Your task to perform on an android device: Go to display settings Image 0: 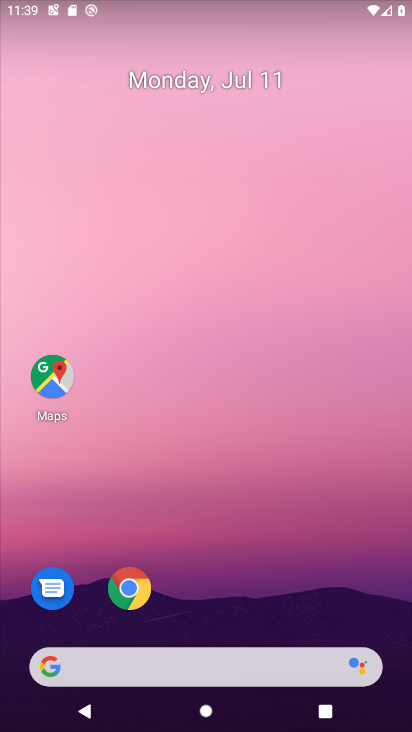
Step 0: drag from (269, 652) to (243, 223)
Your task to perform on an android device: Go to display settings Image 1: 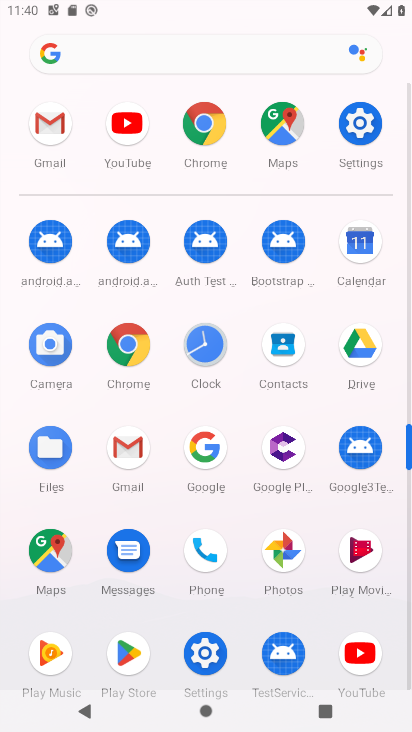
Step 1: click (348, 121)
Your task to perform on an android device: Go to display settings Image 2: 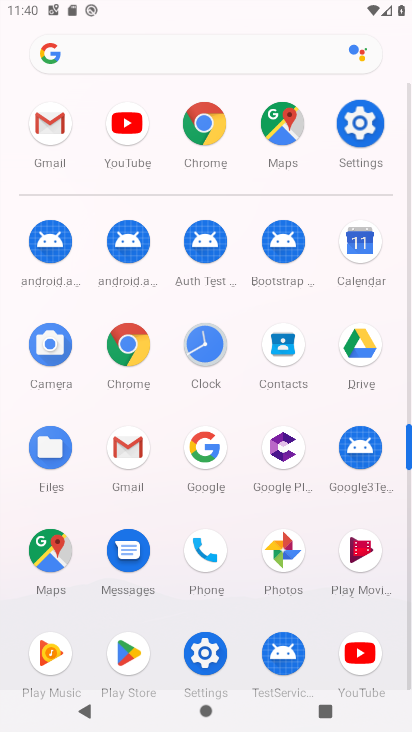
Step 2: click (351, 121)
Your task to perform on an android device: Go to display settings Image 3: 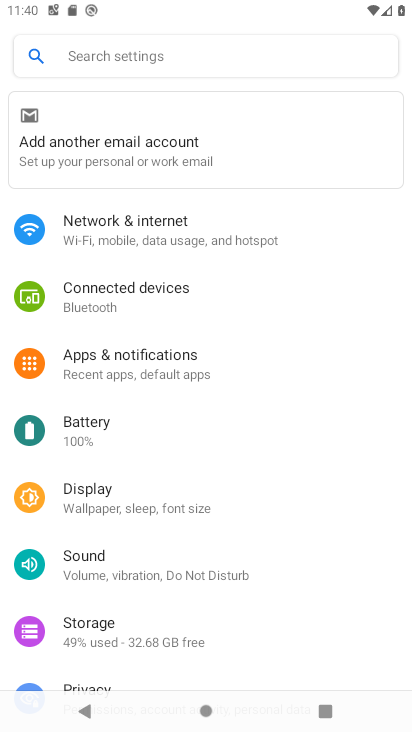
Step 3: click (87, 498)
Your task to perform on an android device: Go to display settings Image 4: 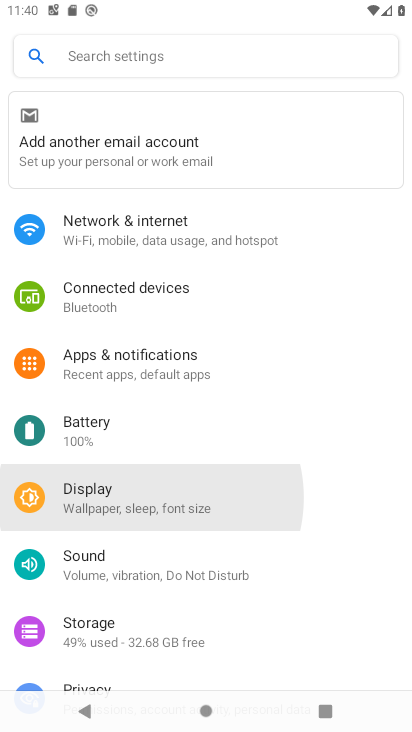
Step 4: click (89, 498)
Your task to perform on an android device: Go to display settings Image 5: 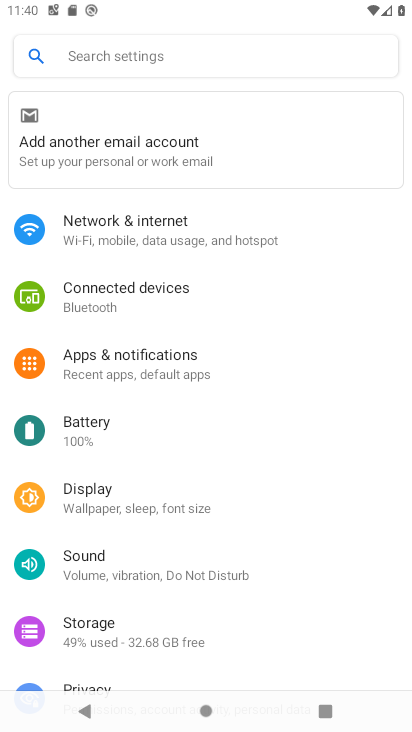
Step 5: click (89, 489)
Your task to perform on an android device: Go to display settings Image 6: 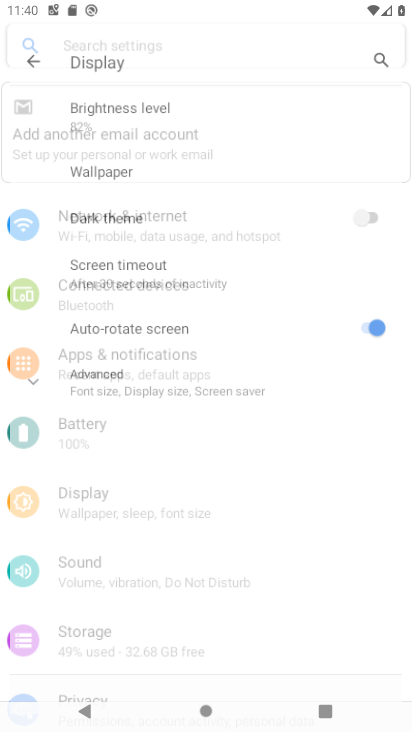
Step 6: click (91, 487)
Your task to perform on an android device: Go to display settings Image 7: 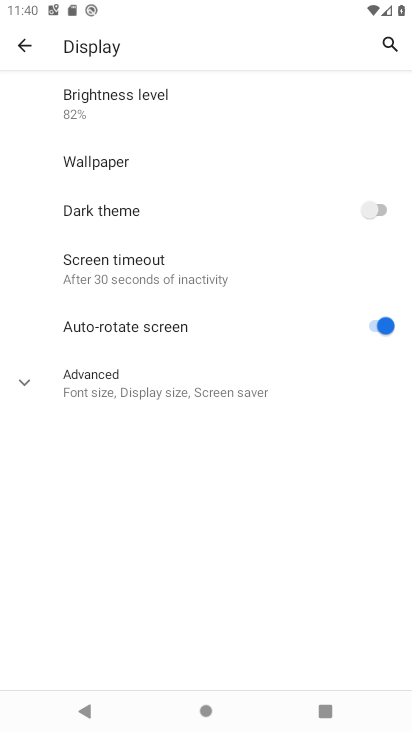
Step 7: task complete